Your task to perform on an android device: Go to Wikipedia Image 0: 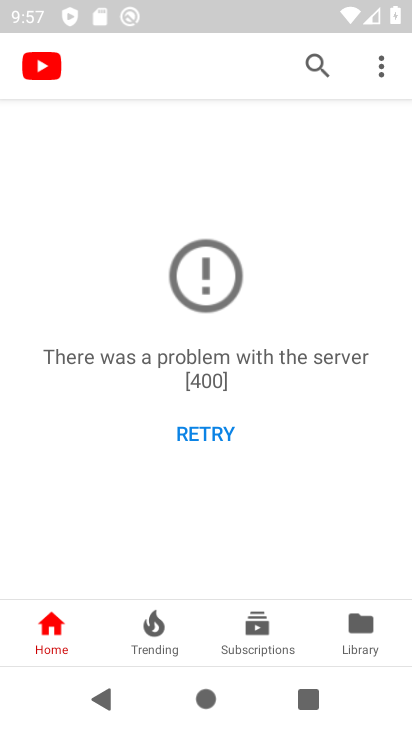
Step 0: press home button
Your task to perform on an android device: Go to Wikipedia Image 1: 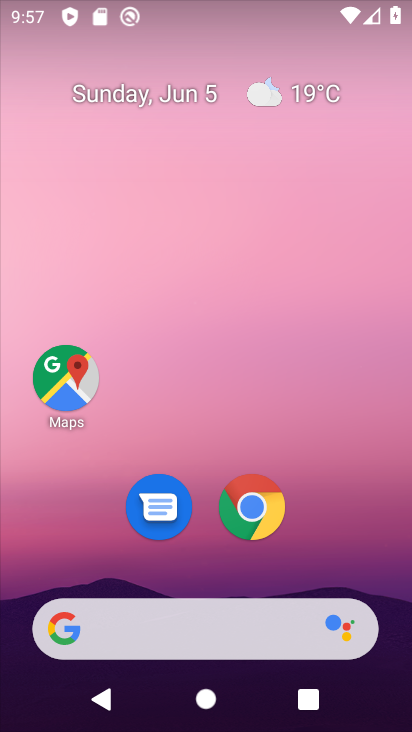
Step 1: click (251, 503)
Your task to perform on an android device: Go to Wikipedia Image 2: 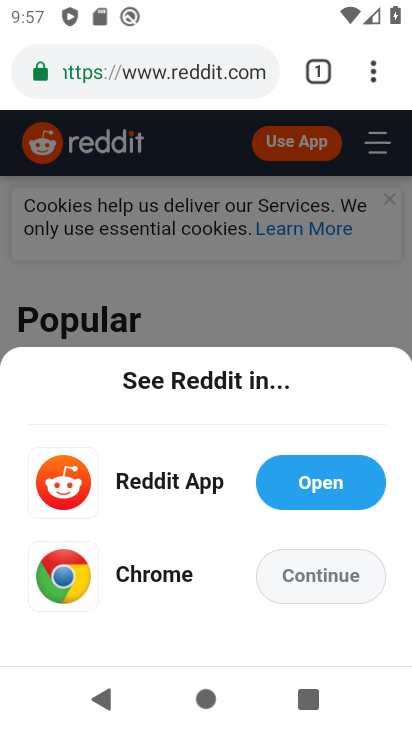
Step 2: click (328, 70)
Your task to perform on an android device: Go to Wikipedia Image 3: 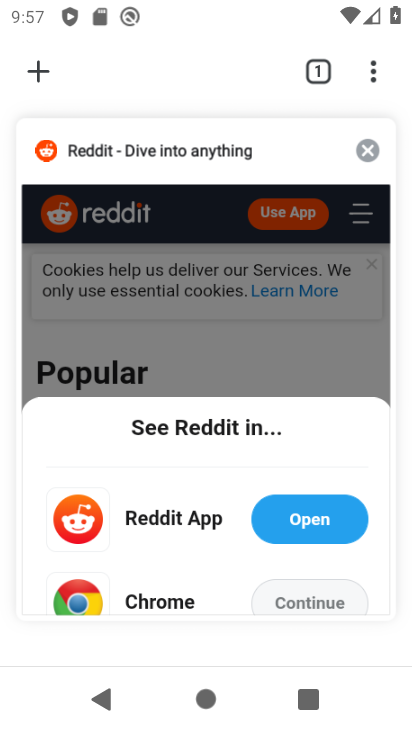
Step 3: click (32, 79)
Your task to perform on an android device: Go to Wikipedia Image 4: 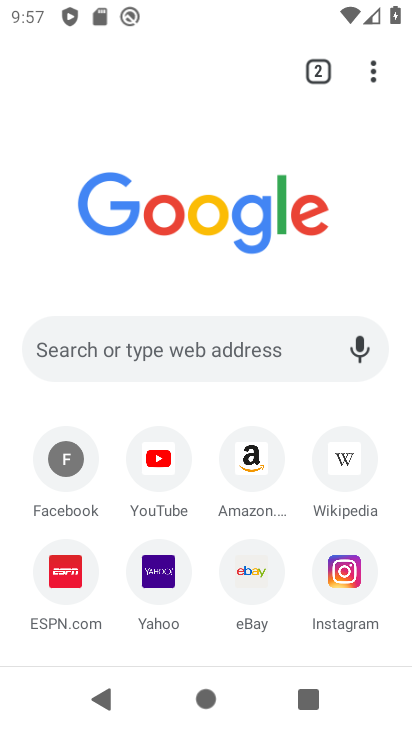
Step 4: click (322, 462)
Your task to perform on an android device: Go to Wikipedia Image 5: 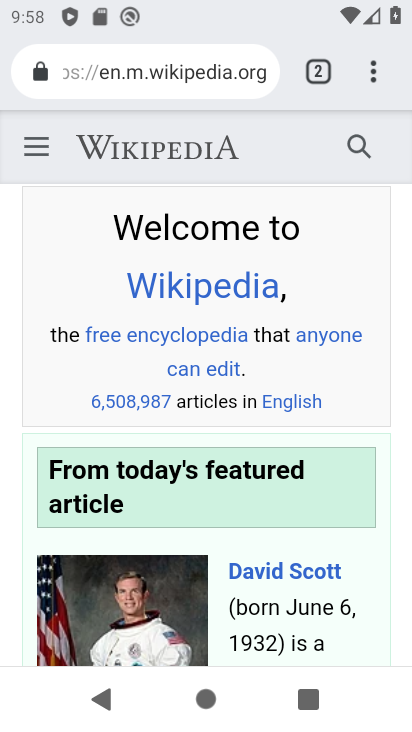
Step 5: task complete